Your task to perform on an android device: Open Android settings Image 0: 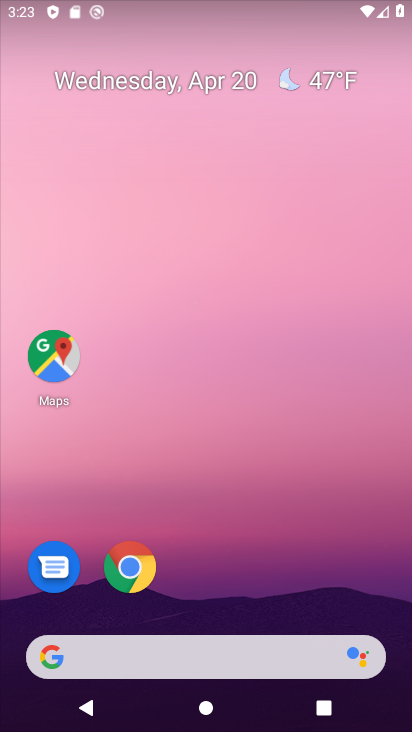
Step 0: drag from (230, 612) to (218, 114)
Your task to perform on an android device: Open Android settings Image 1: 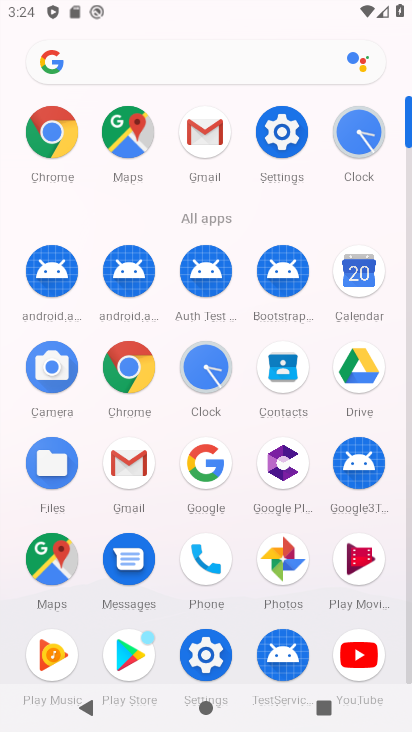
Step 1: click (205, 650)
Your task to perform on an android device: Open Android settings Image 2: 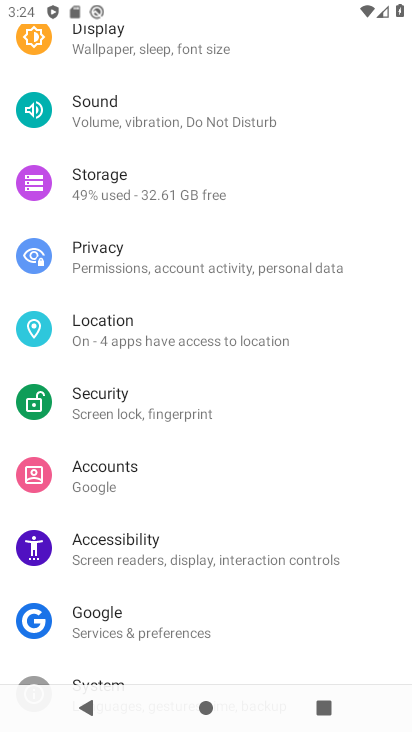
Step 2: drag from (209, 612) to (170, 151)
Your task to perform on an android device: Open Android settings Image 3: 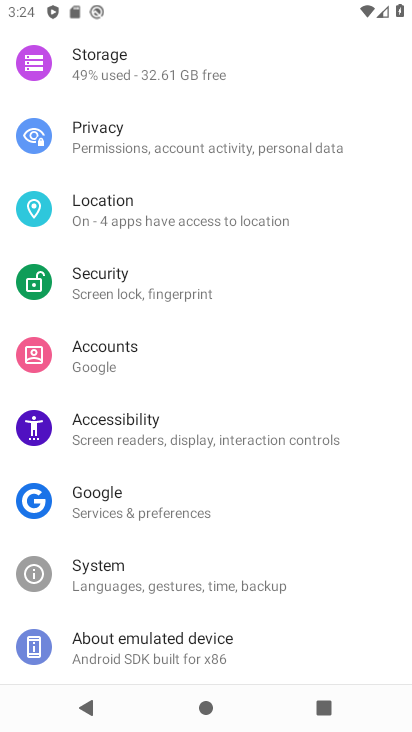
Step 3: drag from (189, 557) to (223, 90)
Your task to perform on an android device: Open Android settings Image 4: 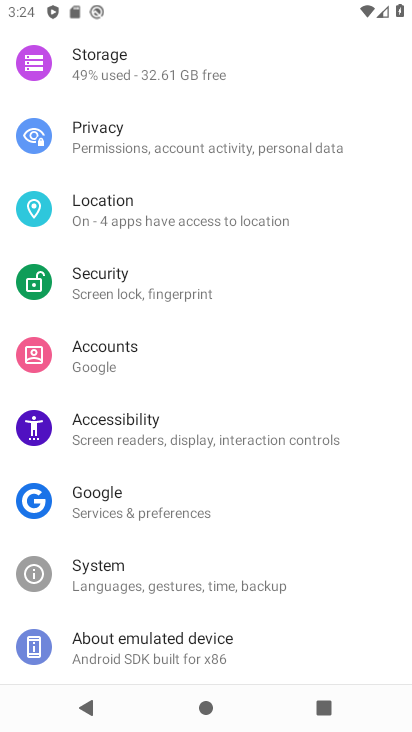
Step 4: click (193, 654)
Your task to perform on an android device: Open Android settings Image 5: 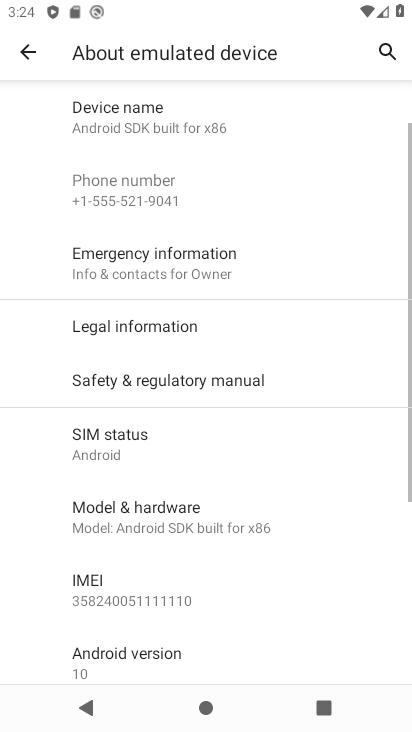
Step 5: click (193, 654)
Your task to perform on an android device: Open Android settings Image 6: 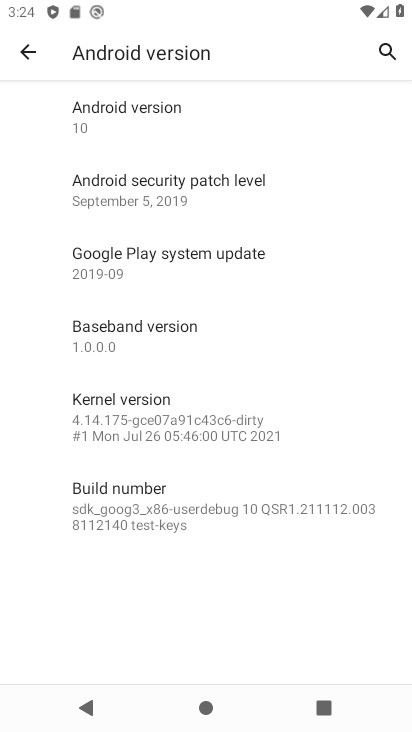
Step 6: task complete